Your task to perform on an android device: See recent photos Image 0: 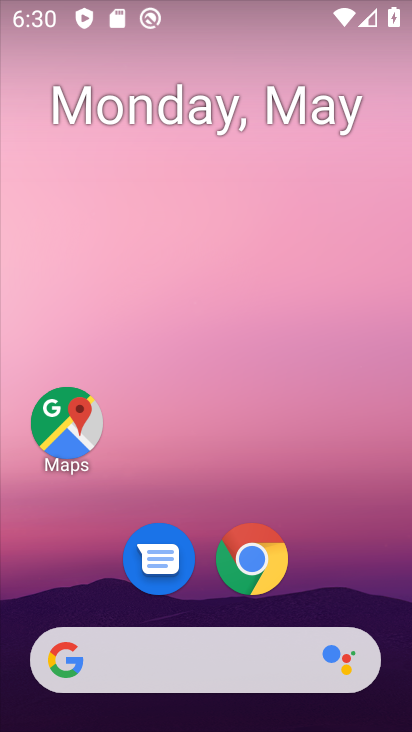
Step 0: drag from (385, 634) to (290, 16)
Your task to perform on an android device: See recent photos Image 1: 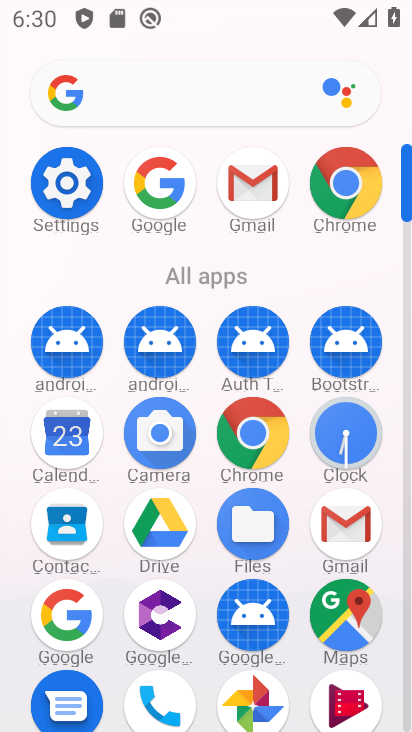
Step 1: click (264, 706)
Your task to perform on an android device: See recent photos Image 2: 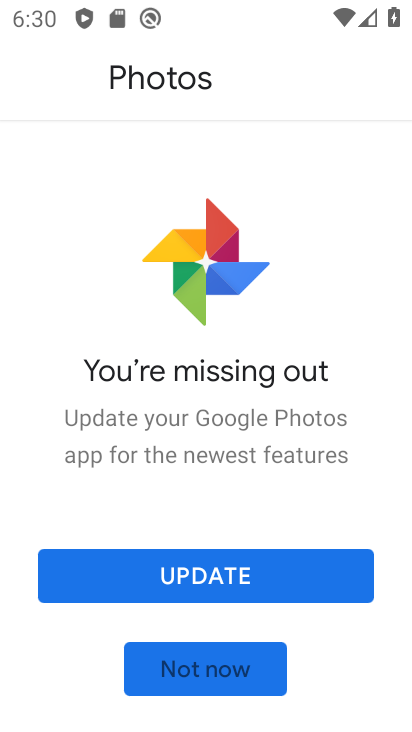
Step 2: click (229, 573)
Your task to perform on an android device: See recent photos Image 3: 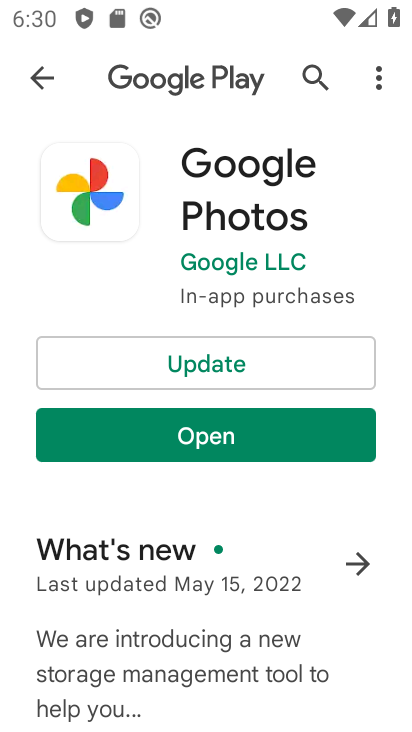
Step 3: click (247, 359)
Your task to perform on an android device: See recent photos Image 4: 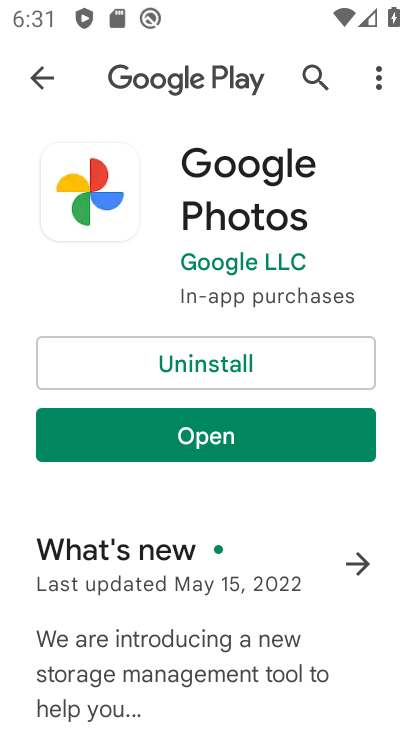
Step 4: click (226, 442)
Your task to perform on an android device: See recent photos Image 5: 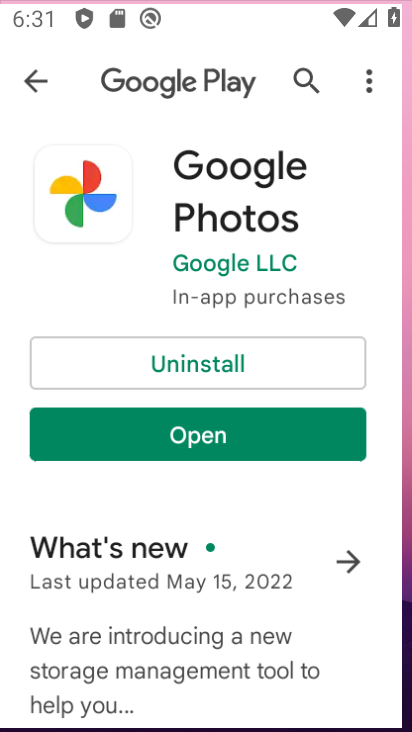
Step 5: click (226, 442)
Your task to perform on an android device: See recent photos Image 6: 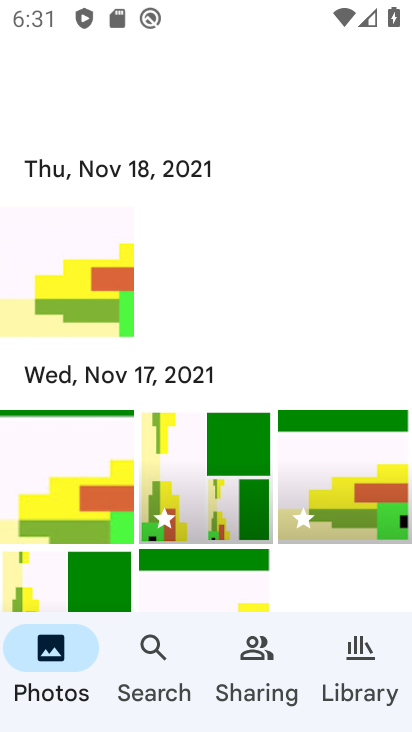
Step 6: click (79, 303)
Your task to perform on an android device: See recent photos Image 7: 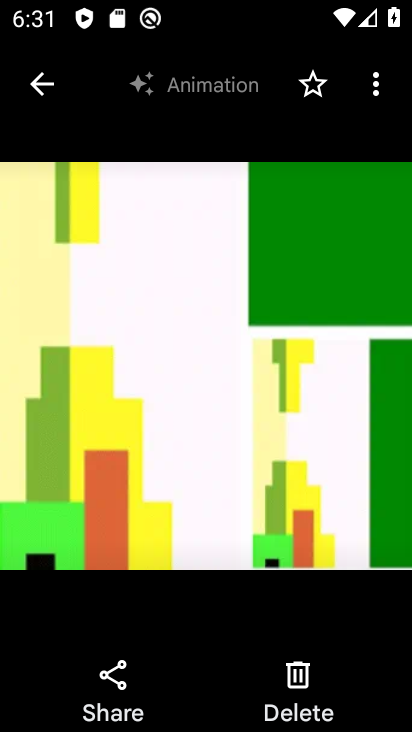
Step 7: task complete